Your task to perform on an android device: Open the phone app and click the voicemail tab. Image 0: 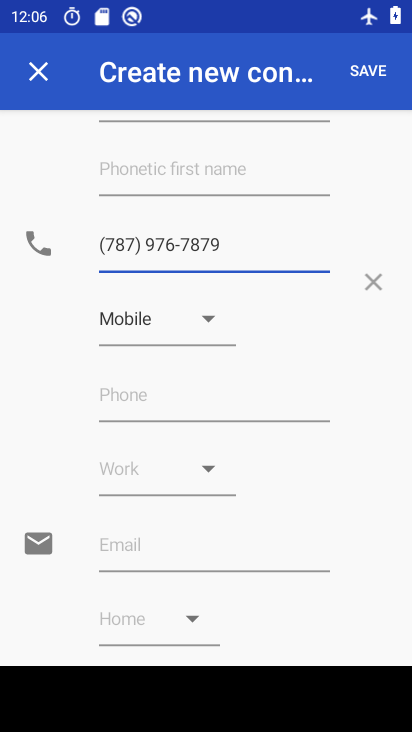
Step 0: press home button
Your task to perform on an android device: Open the phone app and click the voicemail tab. Image 1: 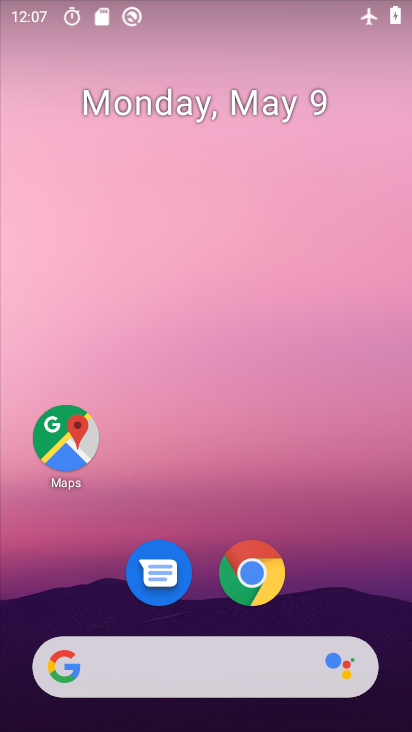
Step 1: click (191, 242)
Your task to perform on an android device: Open the phone app and click the voicemail tab. Image 2: 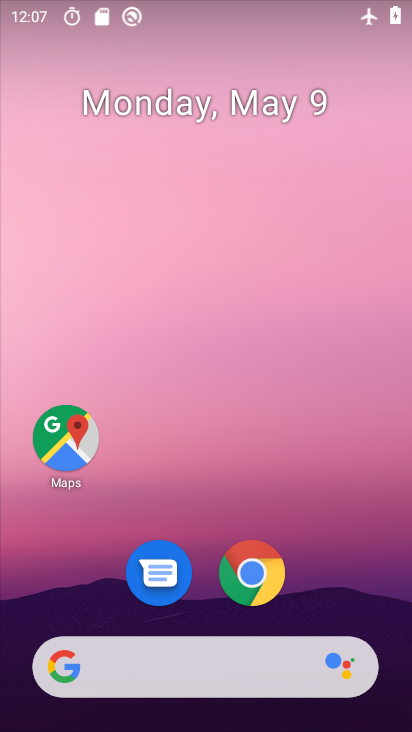
Step 2: click (195, 313)
Your task to perform on an android device: Open the phone app and click the voicemail tab. Image 3: 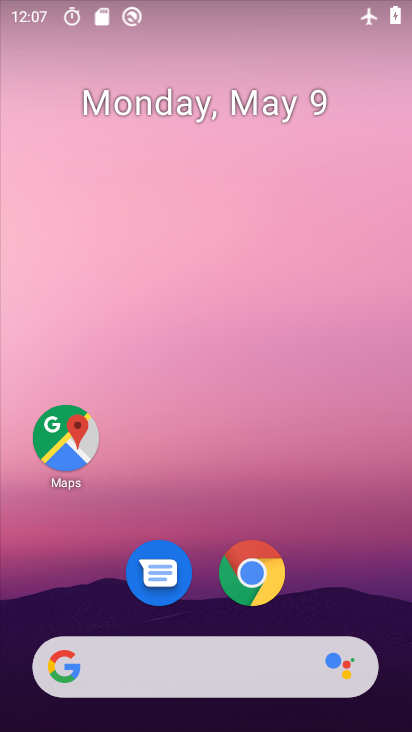
Step 3: drag from (185, 642) to (232, 265)
Your task to perform on an android device: Open the phone app and click the voicemail tab. Image 4: 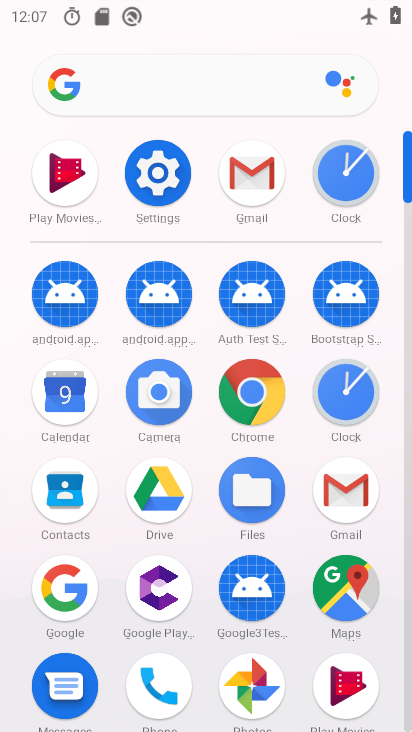
Step 4: click (166, 687)
Your task to perform on an android device: Open the phone app and click the voicemail tab. Image 5: 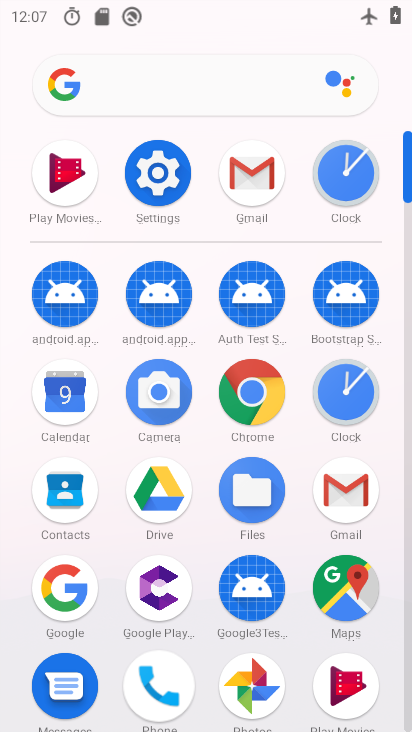
Step 5: click (161, 688)
Your task to perform on an android device: Open the phone app and click the voicemail tab. Image 6: 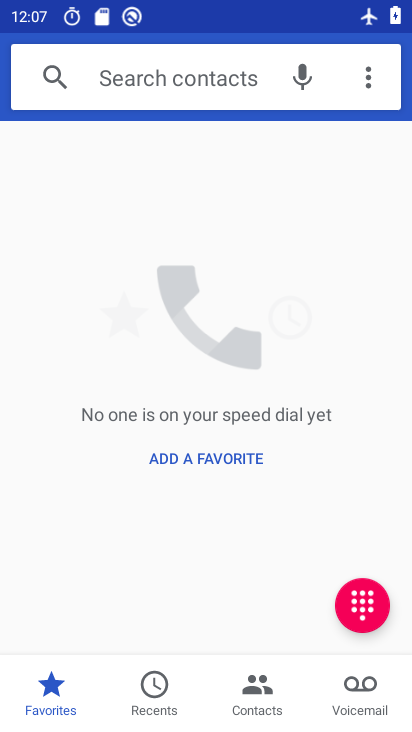
Step 6: click (354, 687)
Your task to perform on an android device: Open the phone app and click the voicemail tab. Image 7: 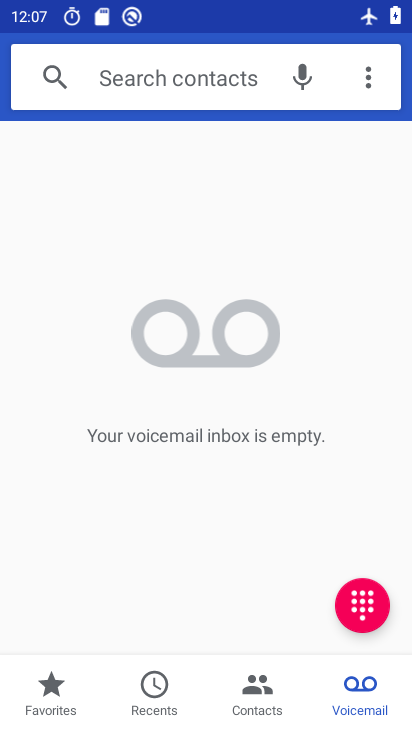
Step 7: task complete